Your task to perform on an android device: all mails in gmail Image 0: 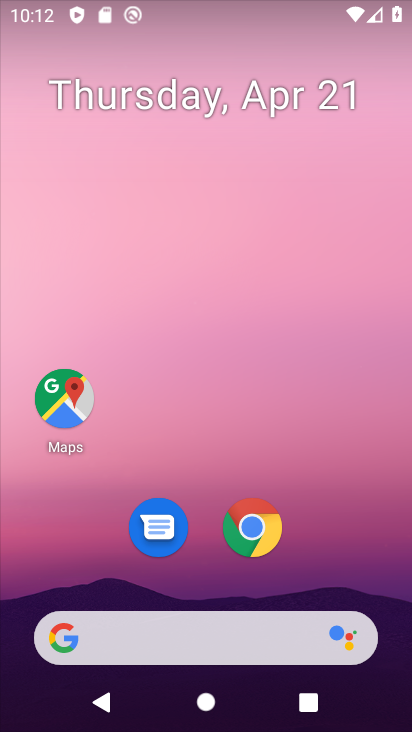
Step 0: drag from (319, 553) to (315, 173)
Your task to perform on an android device: all mails in gmail Image 1: 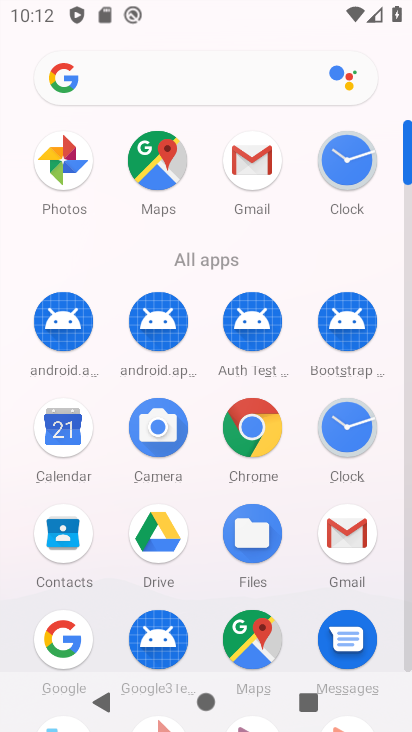
Step 1: click (368, 533)
Your task to perform on an android device: all mails in gmail Image 2: 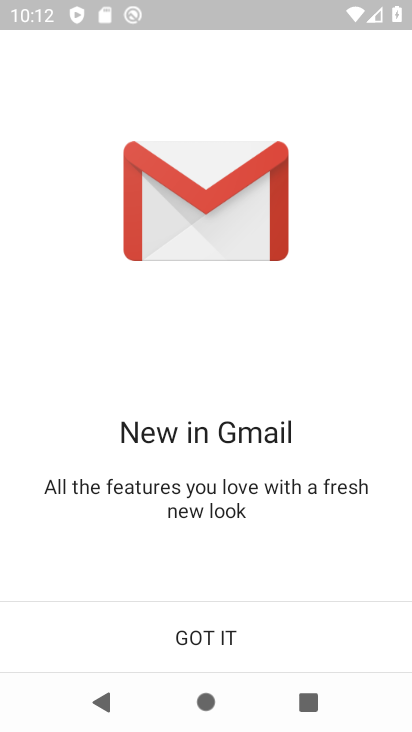
Step 2: click (222, 634)
Your task to perform on an android device: all mails in gmail Image 3: 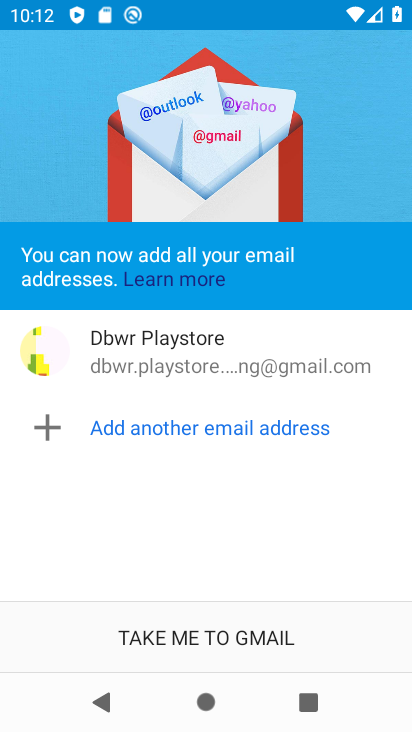
Step 3: click (222, 634)
Your task to perform on an android device: all mails in gmail Image 4: 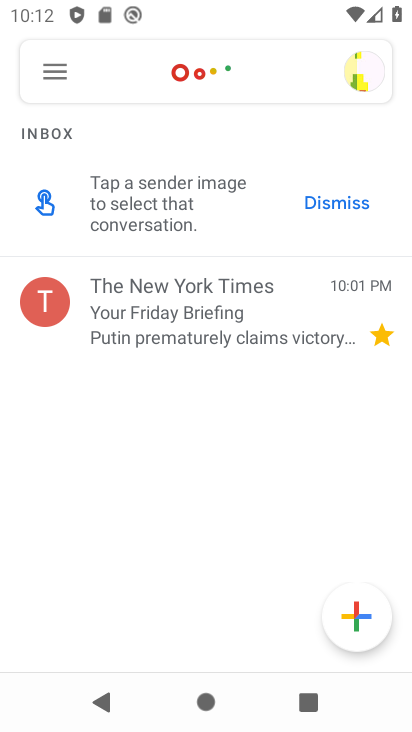
Step 4: click (59, 69)
Your task to perform on an android device: all mails in gmail Image 5: 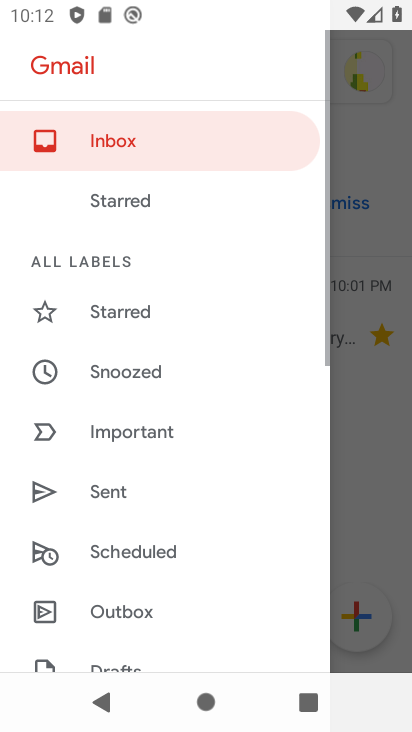
Step 5: drag from (185, 635) to (166, 216)
Your task to perform on an android device: all mails in gmail Image 6: 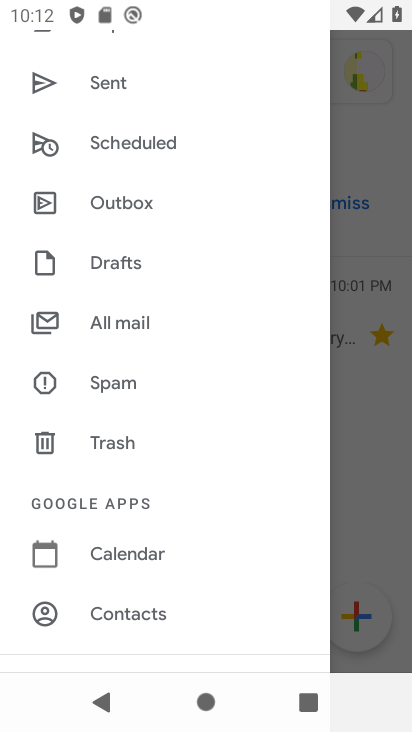
Step 6: click (134, 324)
Your task to perform on an android device: all mails in gmail Image 7: 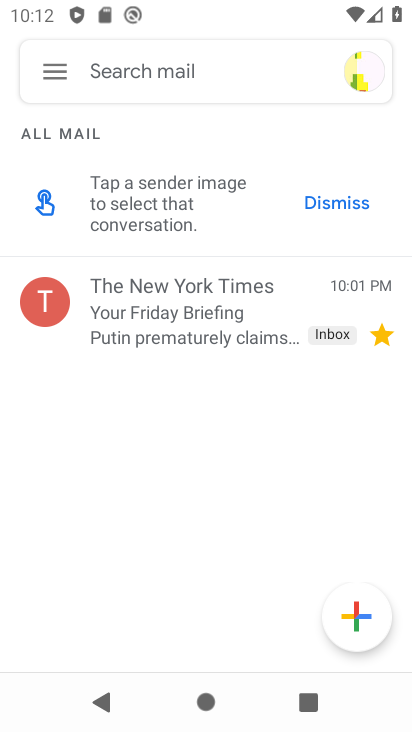
Step 7: task complete